Your task to perform on an android device: Open calendar and show me the first week of next month Image 0: 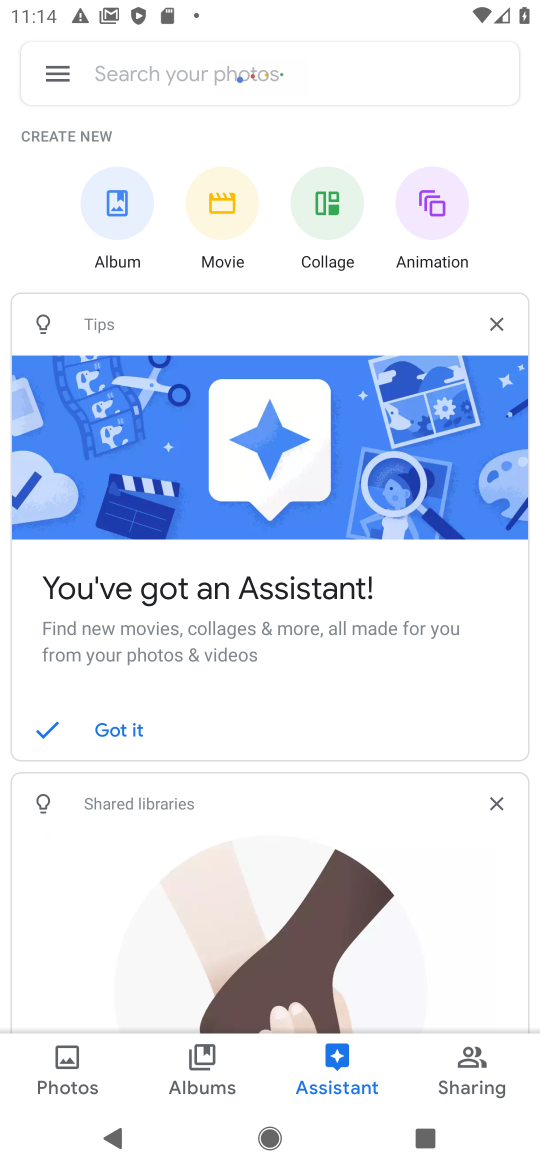
Step 0: press home button
Your task to perform on an android device: Open calendar and show me the first week of next month Image 1: 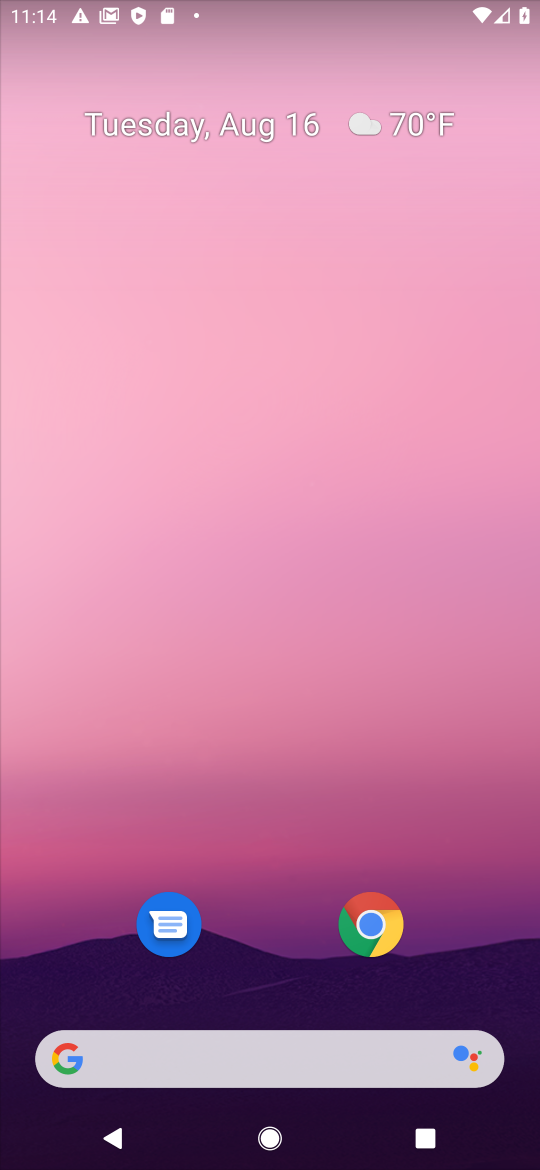
Step 1: click (244, 137)
Your task to perform on an android device: Open calendar and show me the first week of next month Image 2: 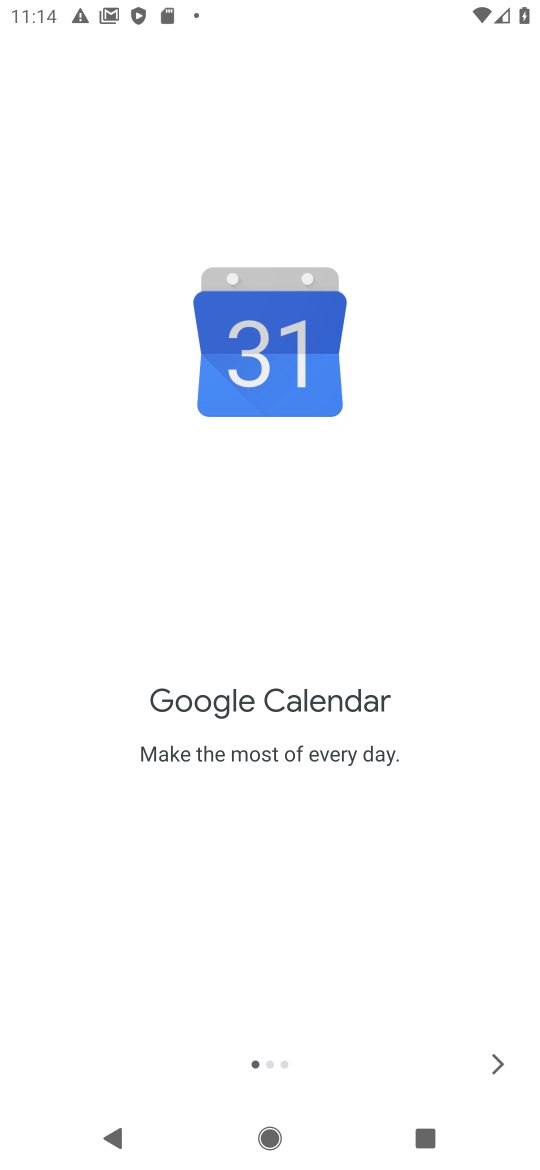
Step 2: click (509, 1065)
Your task to perform on an android device: Open calendar and show me the first week of next month Image 3: 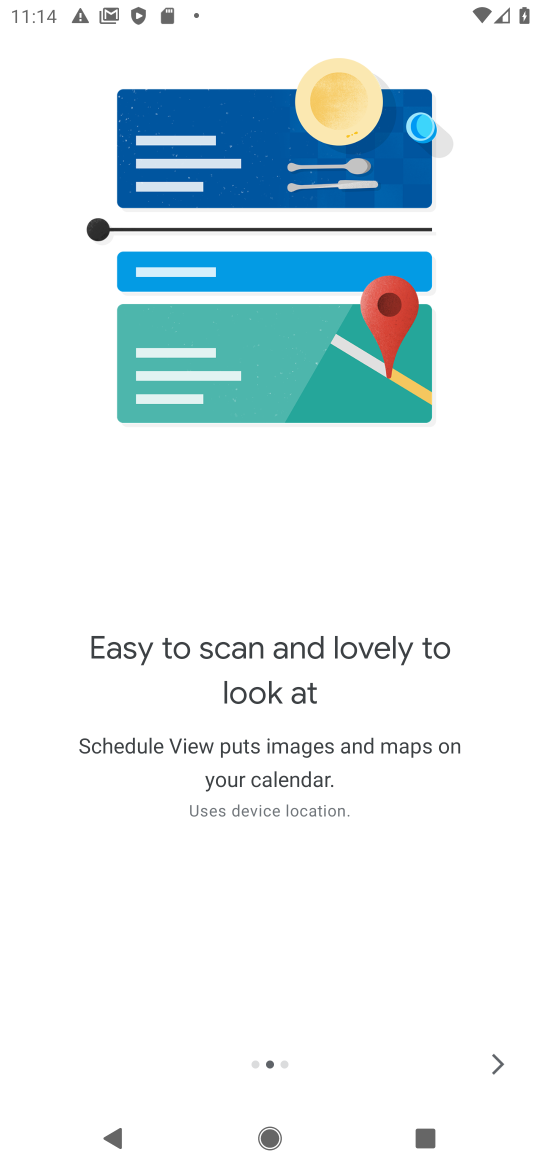
Step 3: click (509, 1065)
Your task to perform on an android device: Open calendar and show me the first week of next month Image 4: 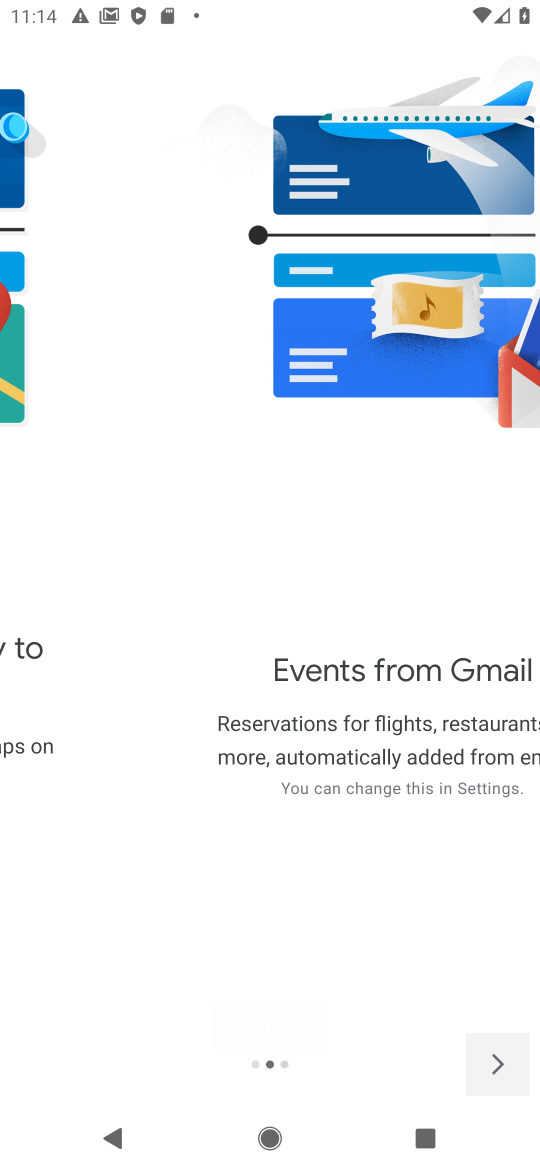
Step 4: click (509, 1065)
Your task to perform on an android device: Open calendar and show me the first week of next month Image 5: 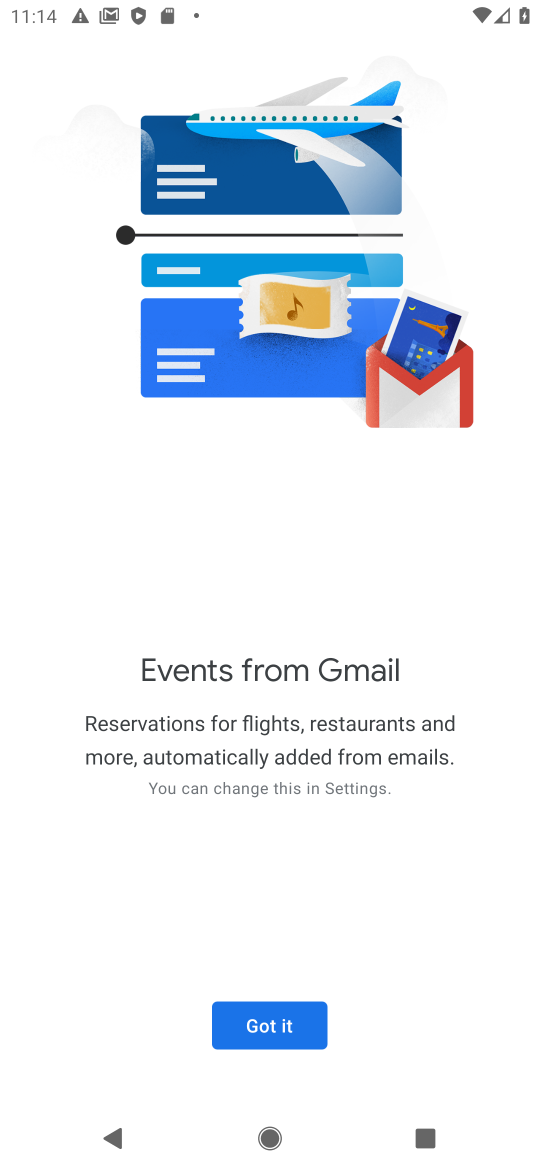
Step 5: click (315, 1033)
Your task to perform on an android device: Open calendar and show me the first week of next month Image 6: 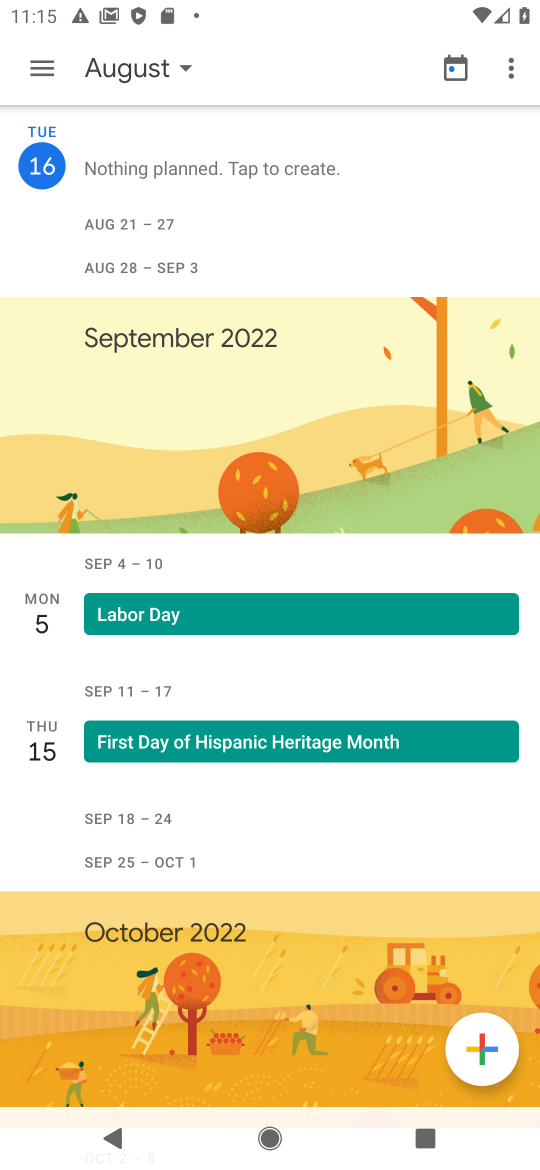
Step 6: click (148, 96)
Your task to perform on an android device: Open calendar and show me the first week of next month Image 7: 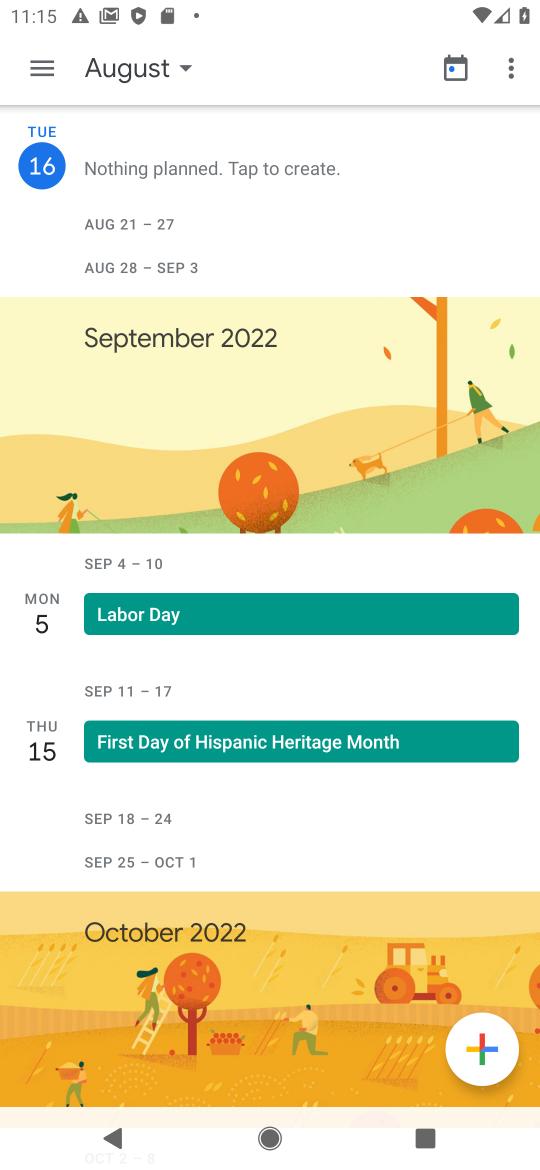
Step 7: click (154, 83)
Your task to perform on an android device: Open calendar and show me the first week of next month Image 8: 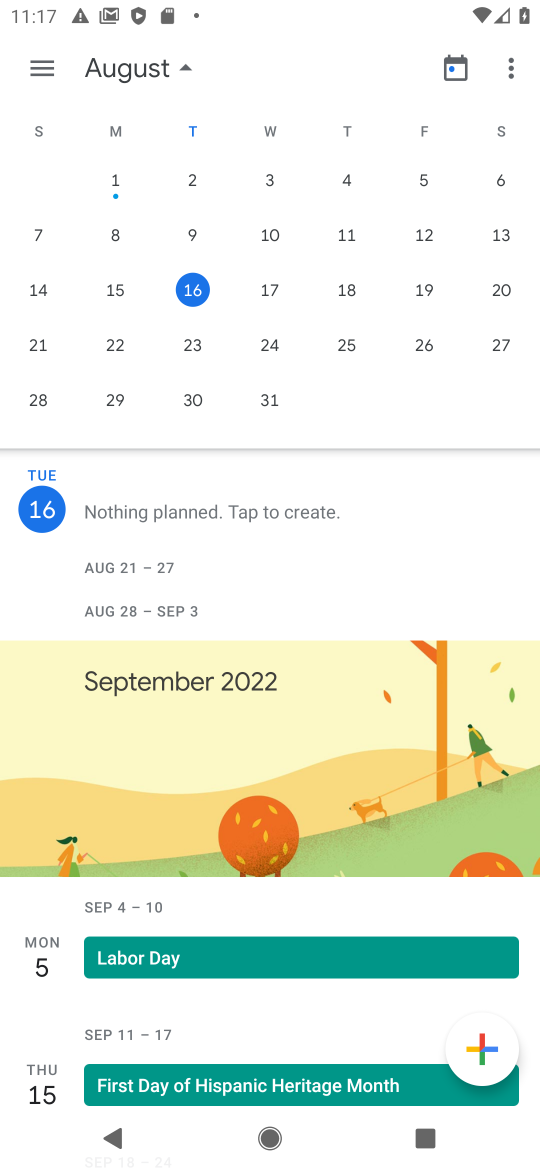
Step 8: task complete